Your task to perform on an android device: turn on wifi Image 0: 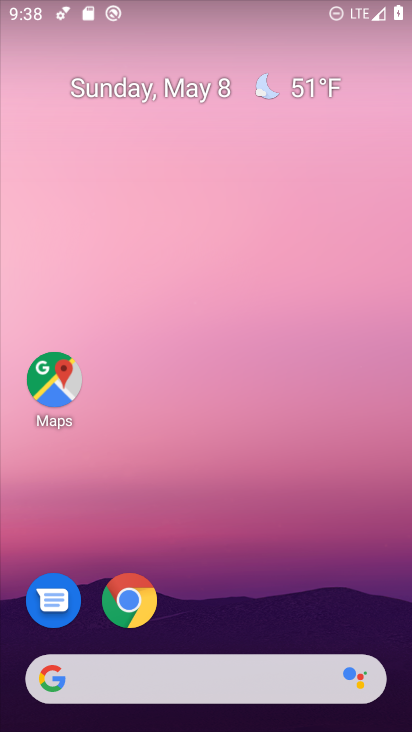
Step 0: drag from (267, 585) to (220, 23)
Your task to perform on an android device: turn on wifi Image 1: 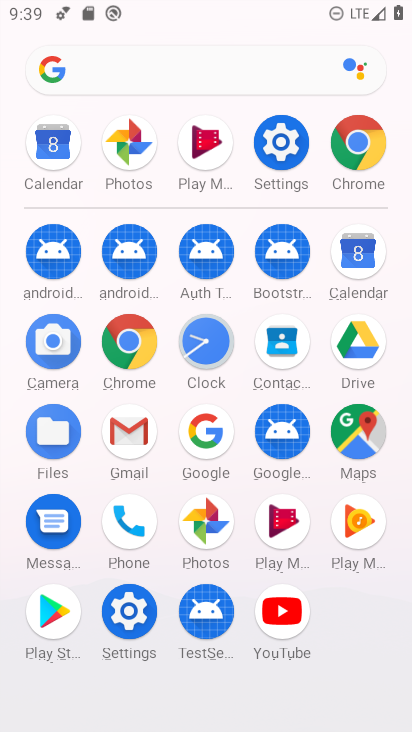
Step 1: click (273, 174)
Your task to perform on an android device: turn on wifi Image 2: 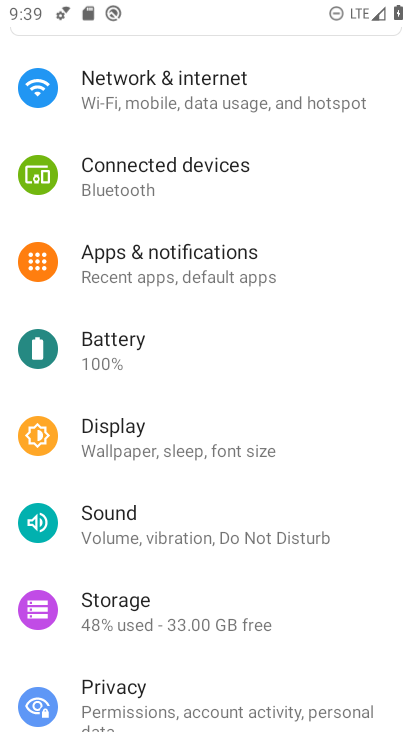
Step 2: click (241, 109)
Your task to perform on an android device: turn on wifi Image 3: 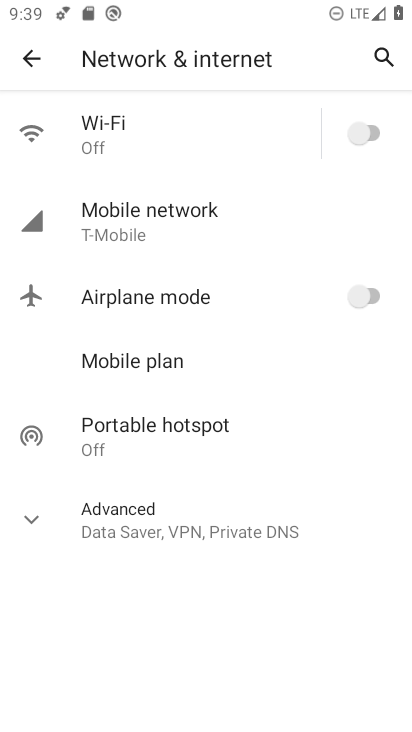
Step 3: click (362, 131)
Your task to perform on an android device: turn on wifi Image 4: 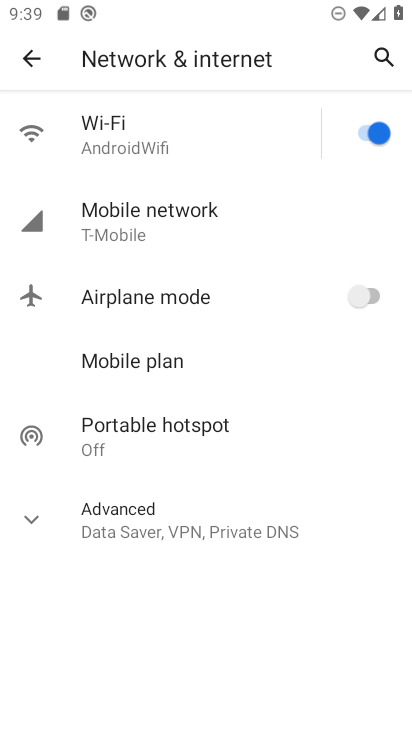
Step 4: task complete